Your task to perform on an android device: change your default location settings in chrome Image 0: 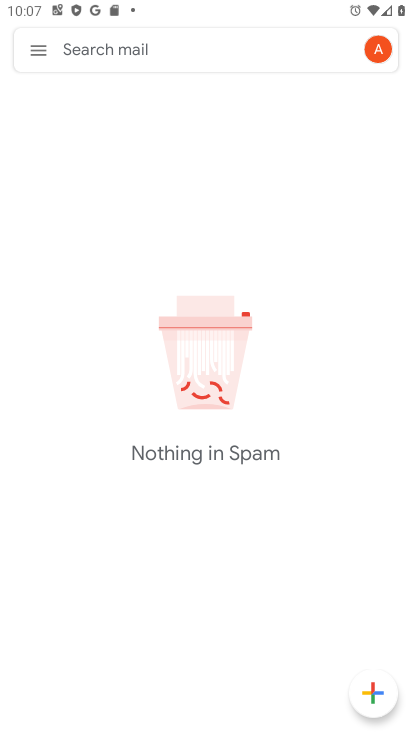
Step 0: press home button
Your task to perform on an android device: change your default location settings in chrome Image 1: 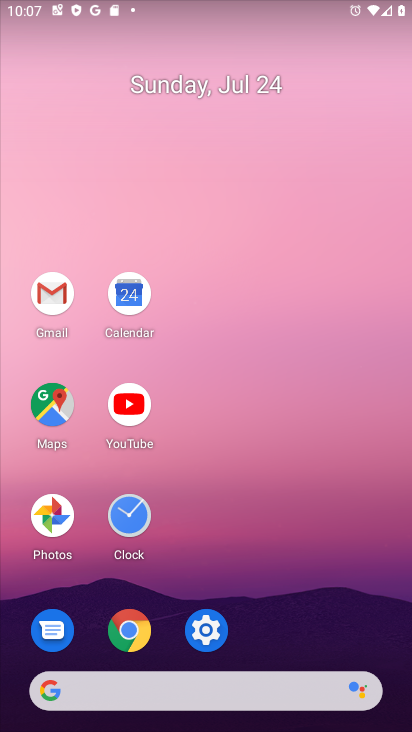
Step 1: click (129, 628)
Your task to perform on an android device: change your default location settings in chrome Image 2: 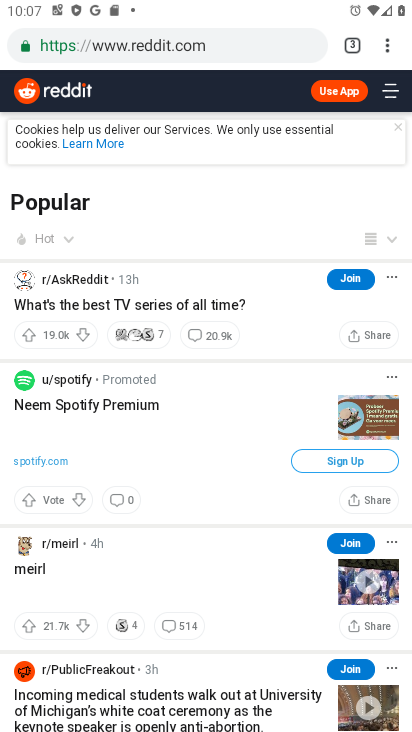
Step 2: click (386, 42)
Your task to perform on an android device: change your default location settings in chrome Image 3: 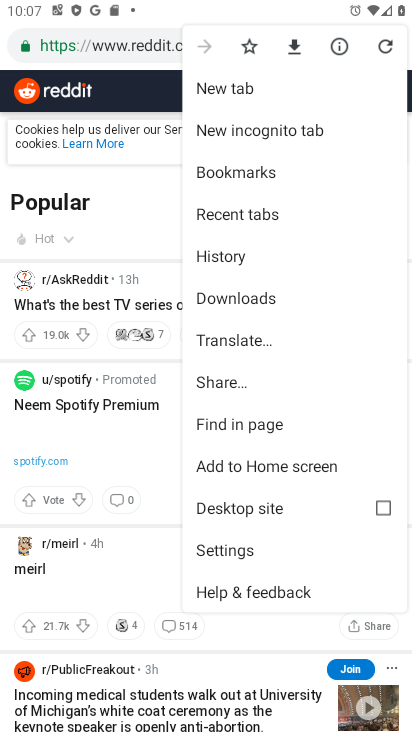
Step 3: click (236, 548)
Your task to perform on an android device: change your default location settings in chrome Image 4: 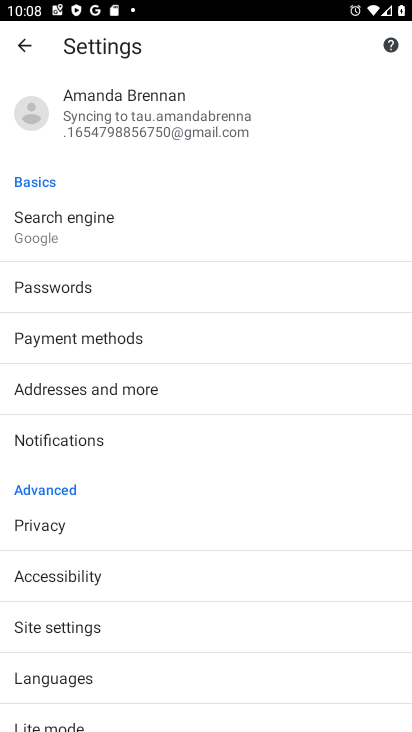
Step 4: click (43, 625)
Your task to perform on an android device: change your default location settings in chrome Image 5: 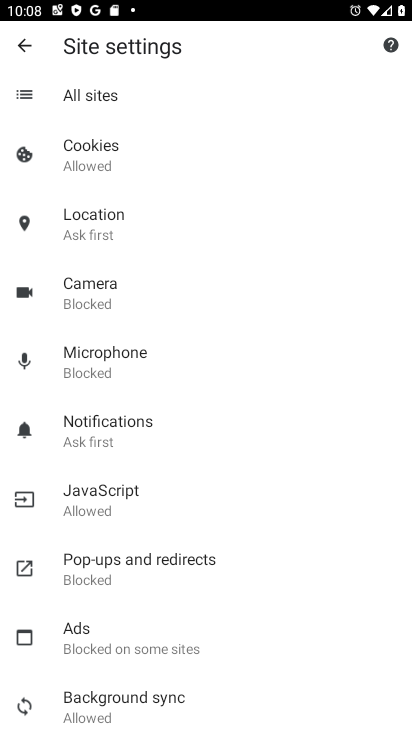
Step 5: click (79, 210)
Your task to perform on an android device: change your default location settings in chrome Image 6: 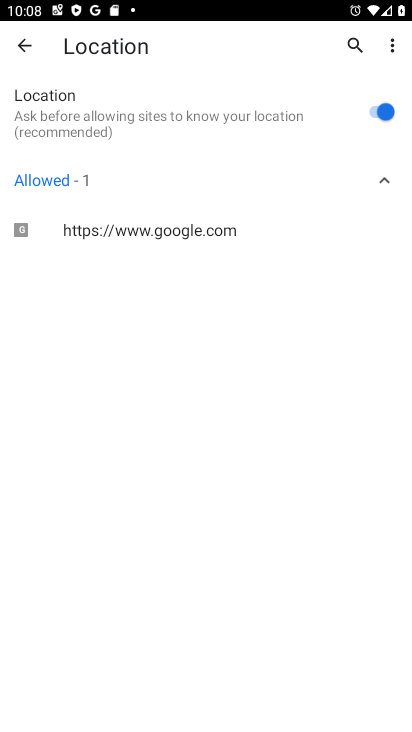
Step 6: click (386, 104)
Your task to perform on an android device: change your default location settings in chrome Image 7: 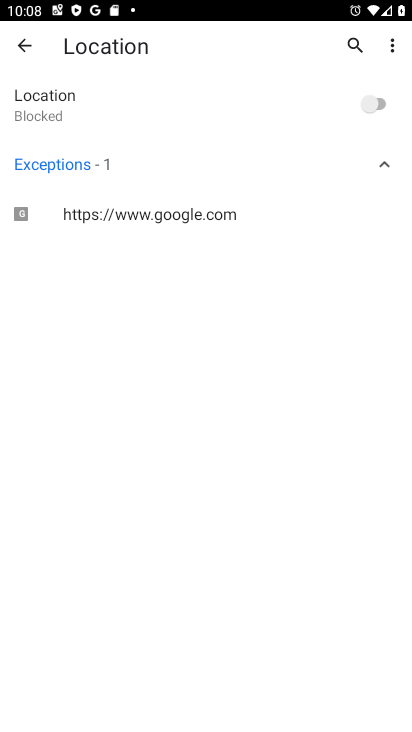
Step 7: task complete